Your task to perform on an android device: change the clock display to analog Image 0: 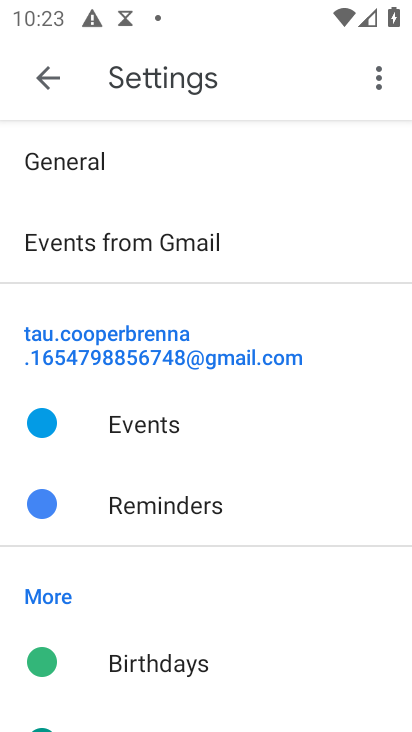
Step 0: press home button
Your task to perform on an android device: change the clock display to analog Image 1: 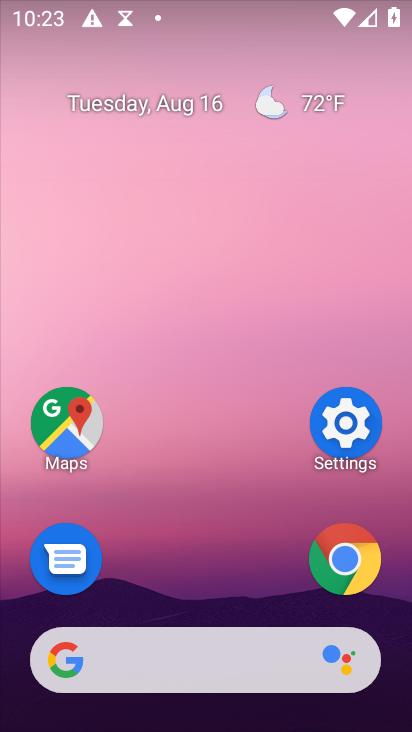
Step 1: drag from (196, 619) to (267, 143)
Your task to perform on an android device: change the clock display to analog Image 2: 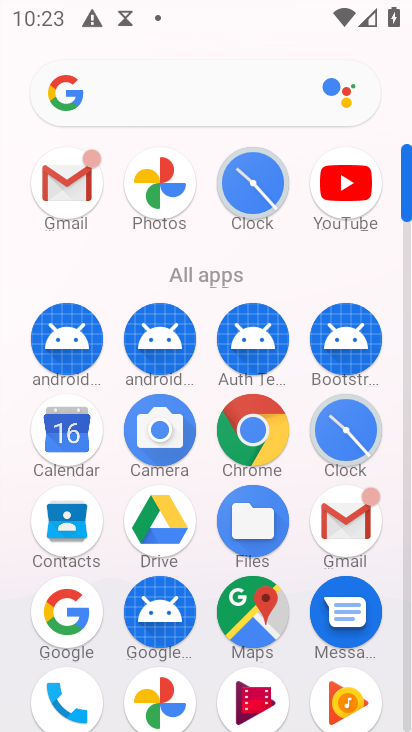
Step 2: click (247, 194)
Your task to perform on an android device: change the clock display to analog Image 3: 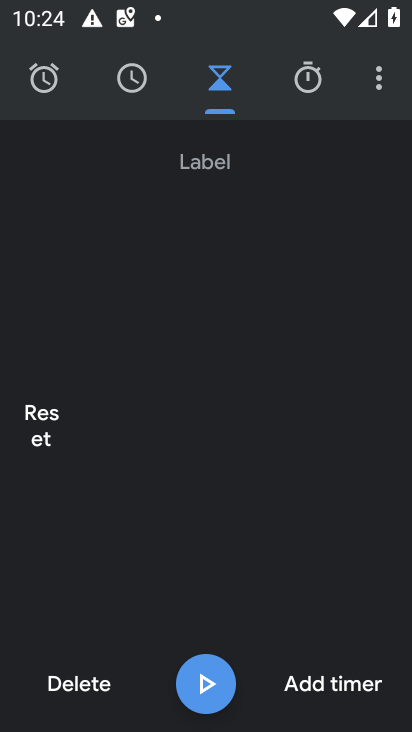
Step 3: click (374, 90)
Your task to perform on an android device: change the clock display to analog Image 4: 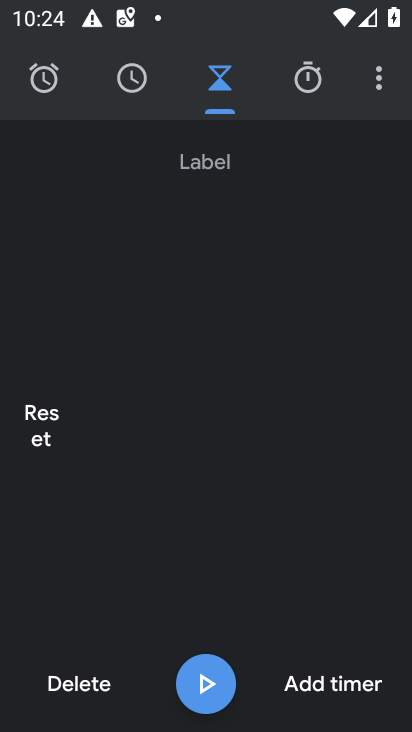
Step 4: click (380, 80)
Your task to perform on an android device: change the clock display to analog Image 5: 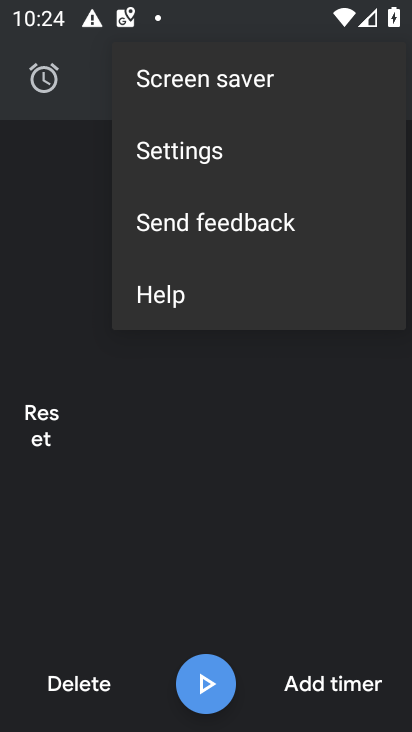
Step 5: click (219, 151)
Your task to perform on an android device: change the clock display to analog Image 6: 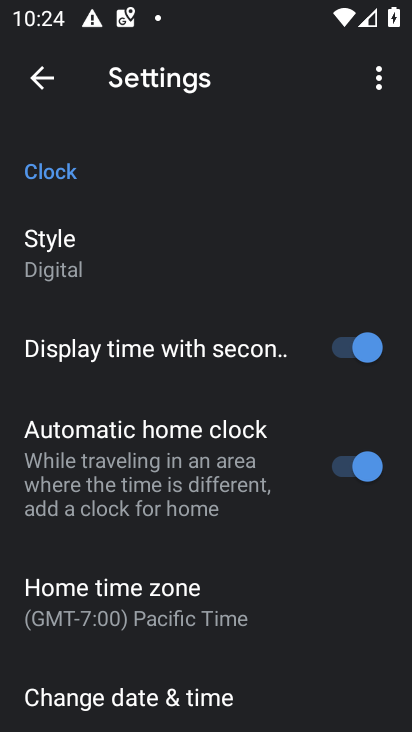
Step 6: click (39, 271)
Your task to perform on an android device: change the clock display to analog Image 7: 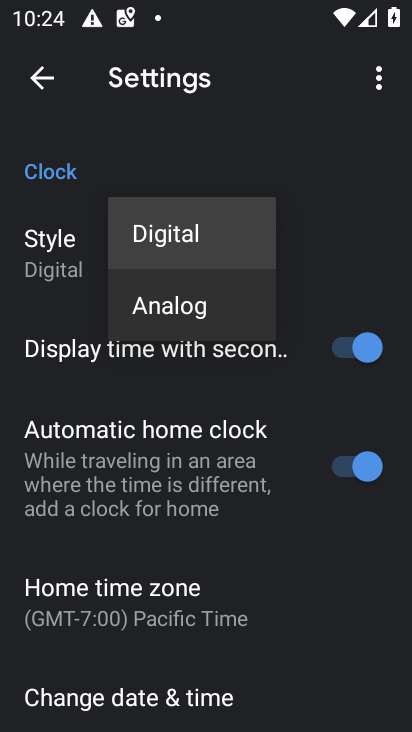
Step 7: click (171, 307)
Your task to perform on an android device: change the clock display to analog Image 8: 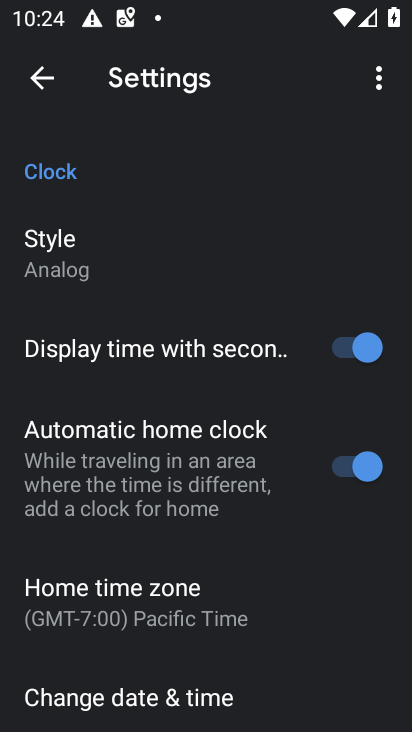
Step 8: task complete